Your task to perform on an android device: Open the map Image 0: 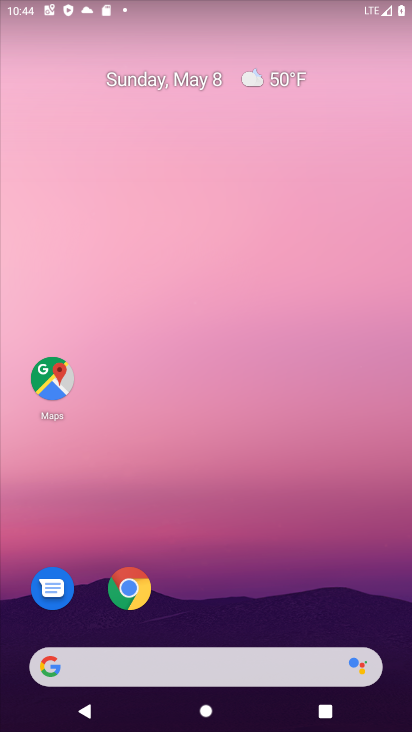
Step 0: drag from (245, 566) to (192, 708)
Your task to perform on an android device: Open the map Image 1: 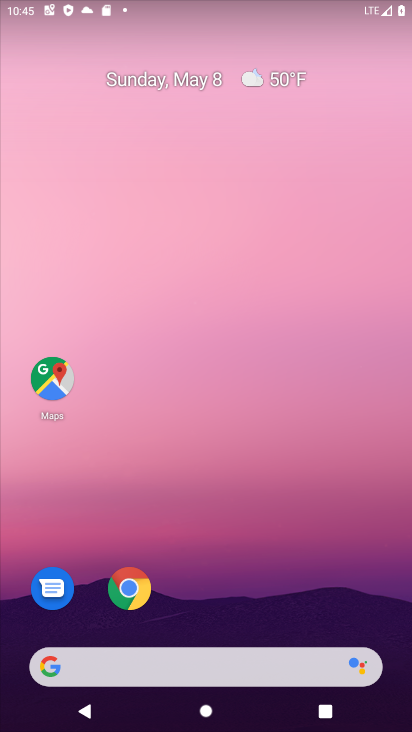
Step 1: click (49, 386)
Your task to perform on an android device: Open the map Image 2: 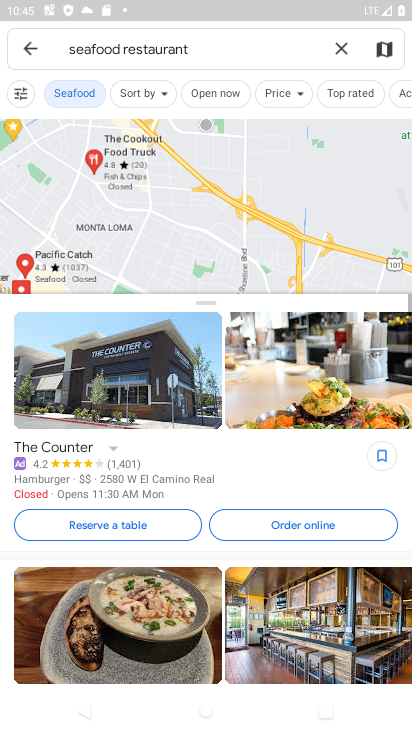
Step 2: task complete